Your task to perform on an android device: set the stopwatch Image 0: 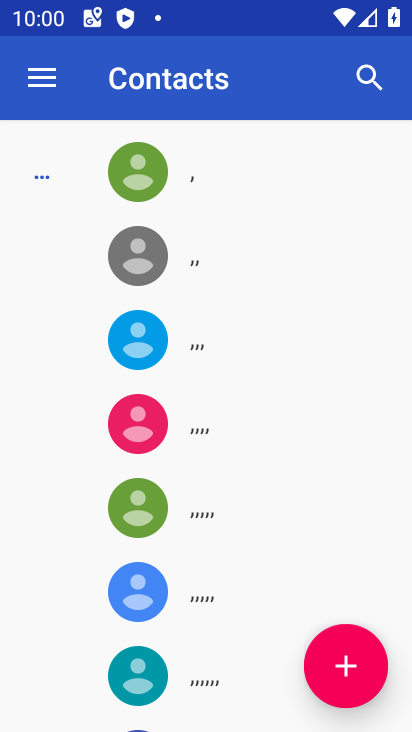
Step 0: press home button
Your task to perform on an android device: set the stopwatch Image 1: 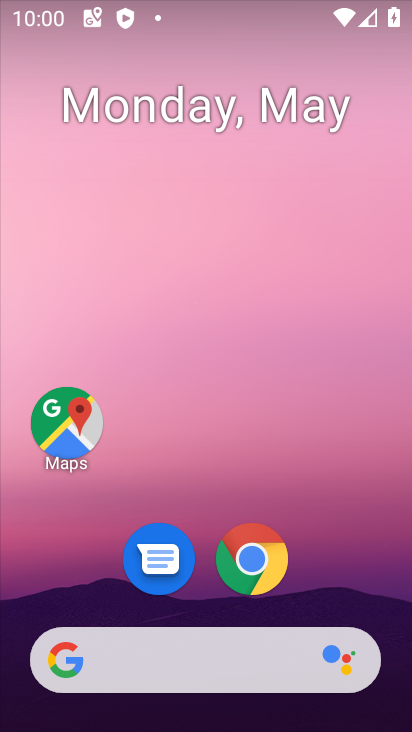
Step 1: drag from (347, 509) to (243, 102)
Your task to perform on an android device: set the stopwatch Image 2: 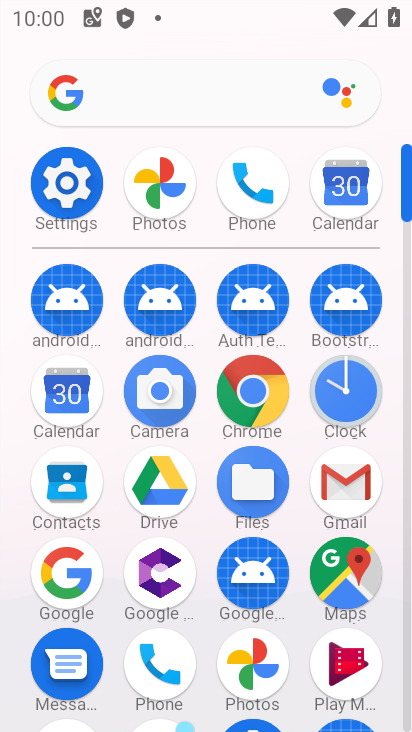
Step 2: click (338, 380)
Your task to perform on an android device: set the stopwatch Image 3: 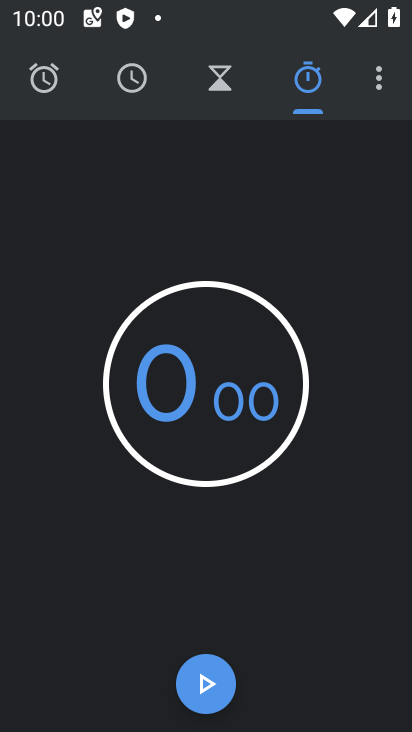
Step 3: task complete